Your task to perform on an android device: change notifications settings Image 0: 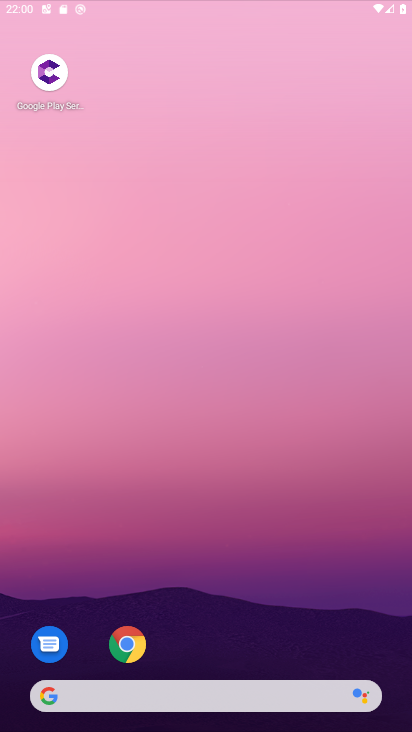
Step 0: press home button
Your task to perform on an android device: change notifications settings Image 1: 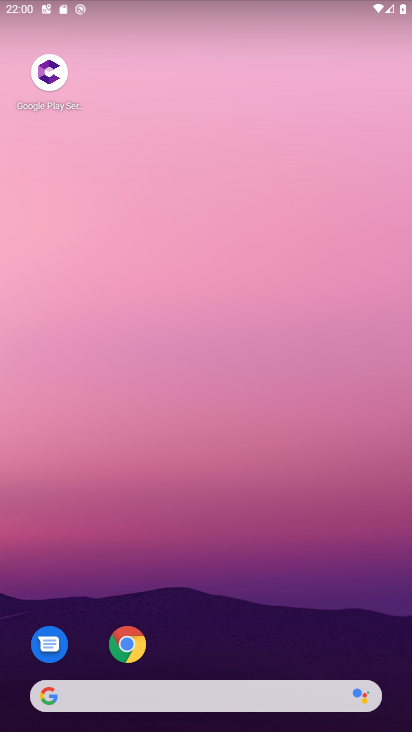
Step 1: drag from (202, 660) to (201, 99)
Your task to perform on an android device: change notifications settings Image 2: 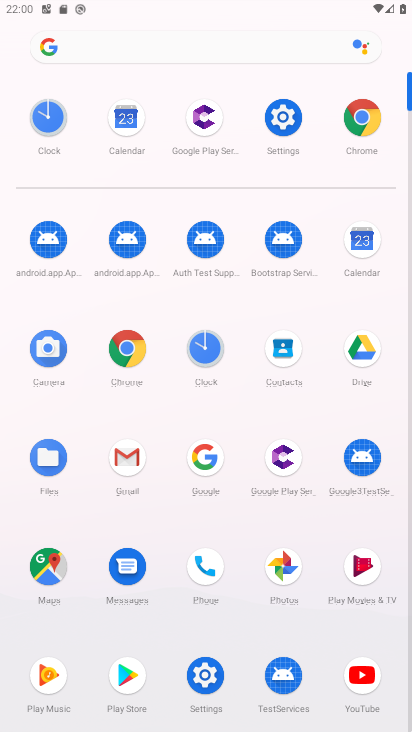
Step 2: click (282, 115)
Your task to perform on an android device: change notifications settings Image 3: 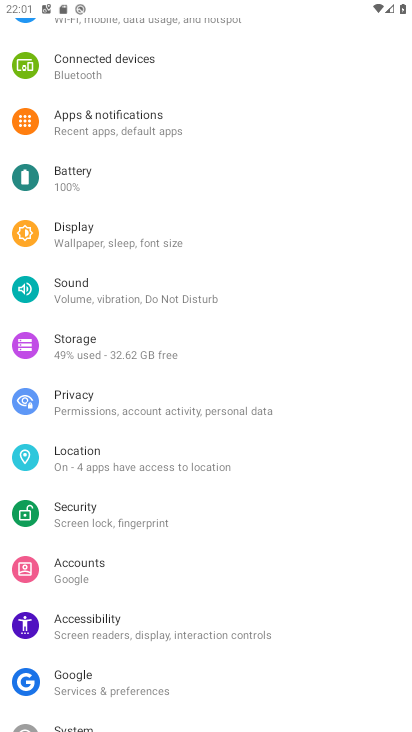
Step 3: click (147, 117)
Your task to perform on an android device: change notifications settings Image 4: 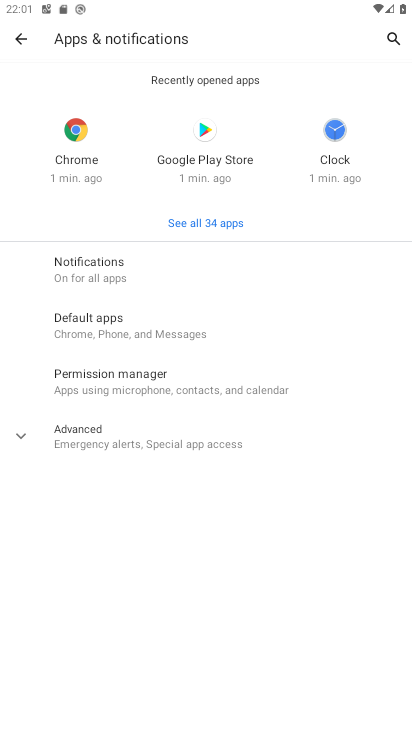
Step 4: click (136, 260)
Your task to perform on an android device: change notifications settings Image 5: 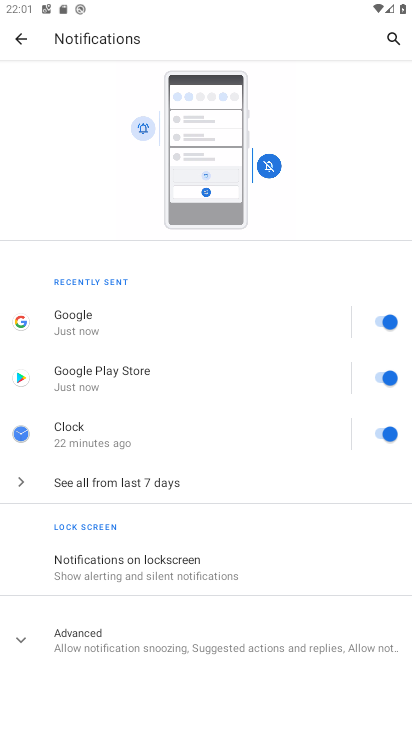
Step 5: click (19, 633)
Your task to perform on an android device: change notifications settings Image 6: 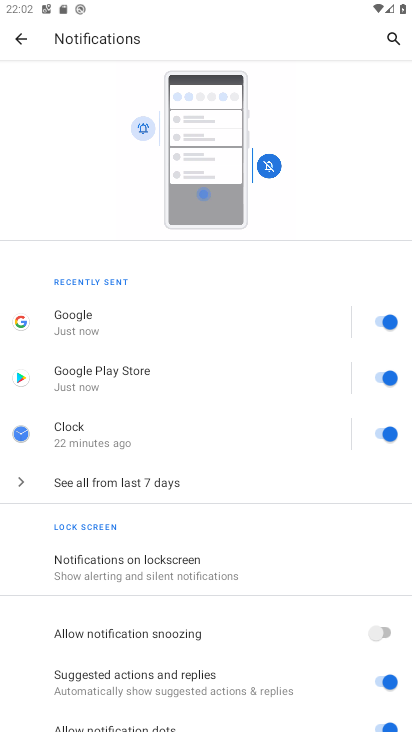
Step 6: drag from (207, 674) to (220, 203)
Your task to perform on an android device: change notifications settings Image 7: 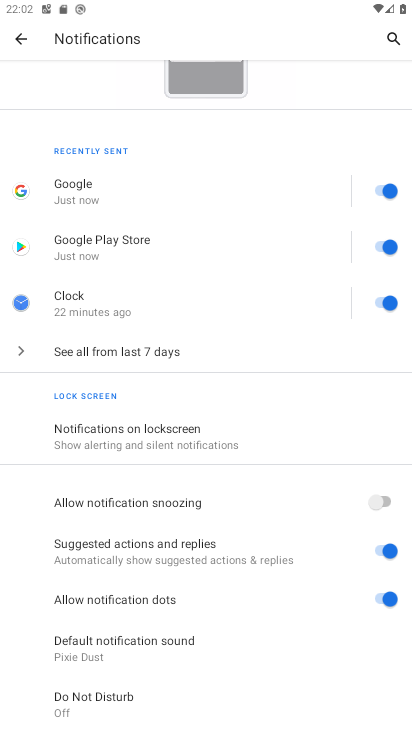
Step 7: click (381, 193)
Your task to perform on an android device: change notifications settings Image 8: 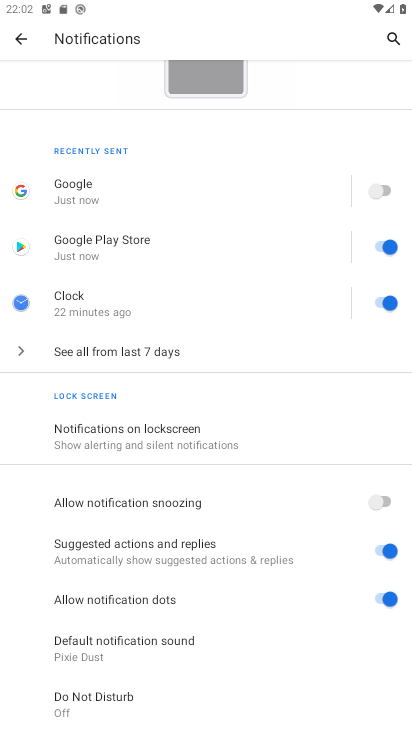
Step 8: click (386, 237)
Your task to perform on an android device: change notifications settings Image 9: 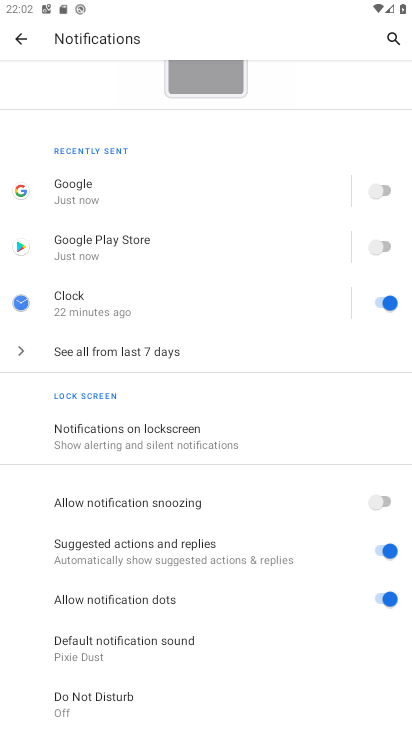
Step 9: click (378, 305)
Your task to perform on an android device: change notifications settings Image 10: 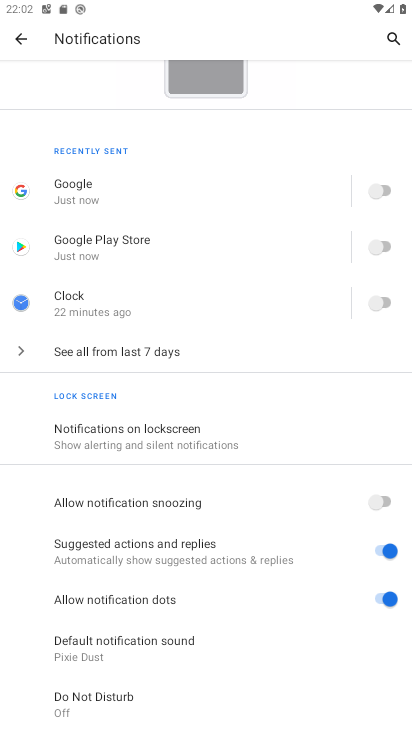
Step 10: task complete